Your task to perform on an android device: turn on translation in the chrome app Image 0: 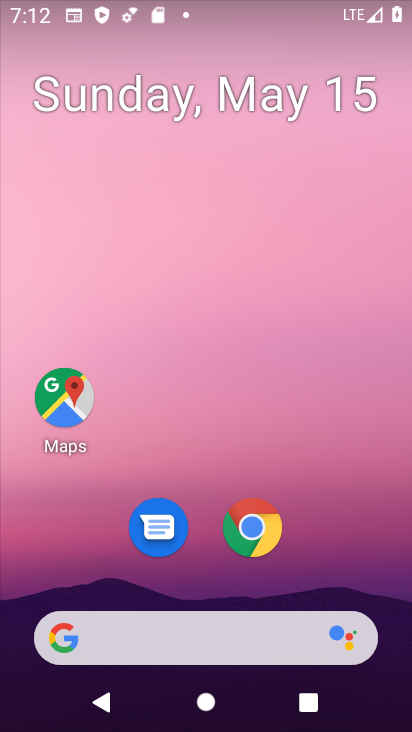
Step 0: drag from (376, 475) to (361, 58)
Your task to perform on an android device: turn on translation in the chrome app Image 1: 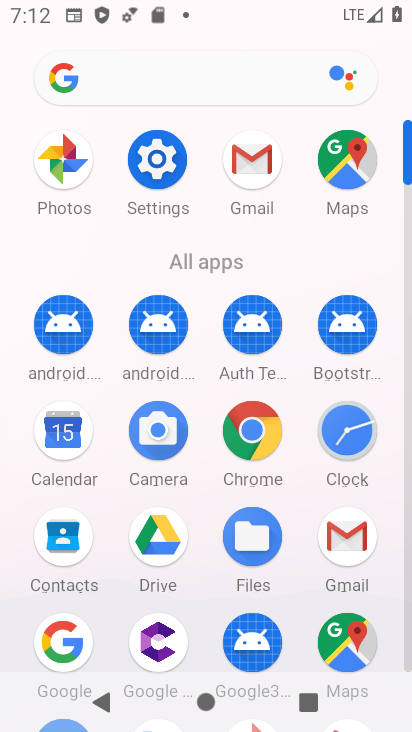
Step 1: click (253, 409)
Your task to perform on an android device: turn on translation in the chrome app Image 2: 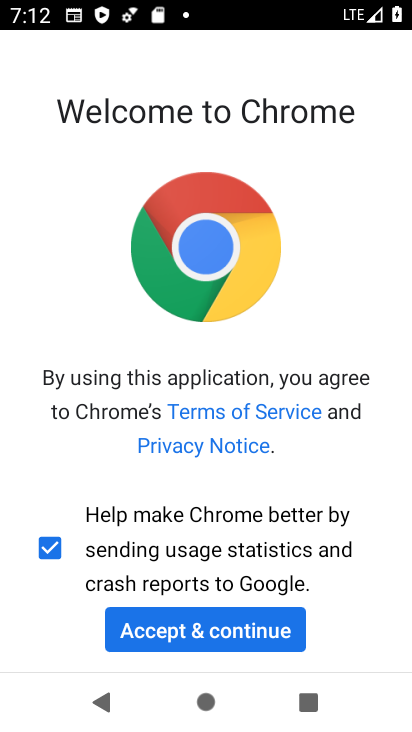
Step 2: click (247, 628)
Your task to perform on an android device: turn on translation in the chrome app Image 3: 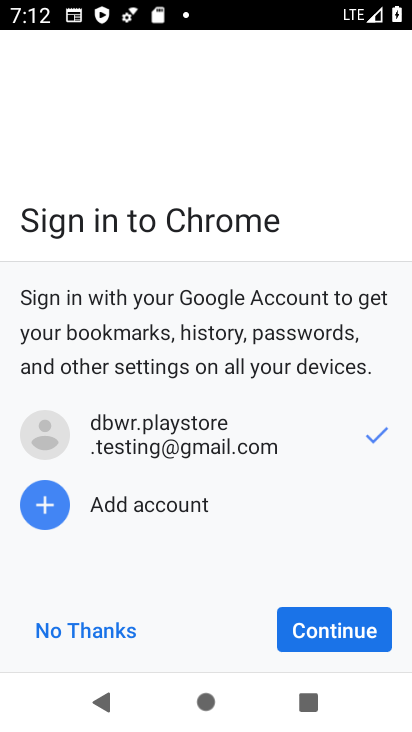
Step 3: click (339, 629)
Your task to perform on an android device: turn on translation in the chrome app Image 4: 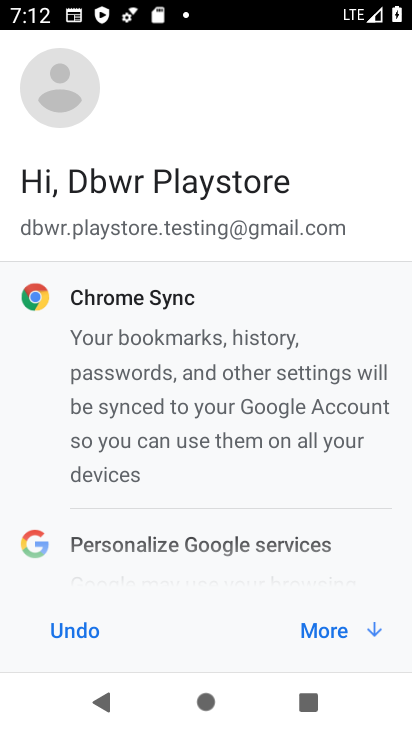
Step 4: click (339, 629)
Your task to perform on an android device: turn on translation in the chrome app Image 5: 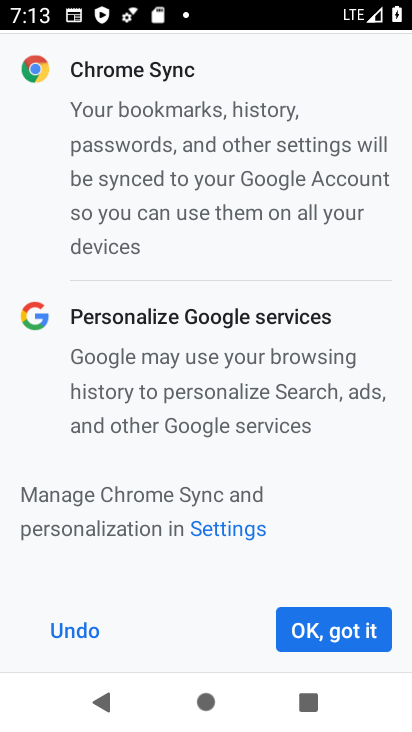
Step 5: click (339, 629)
Your task to perform on an android device: turn on translation in the chrome app Image 6: 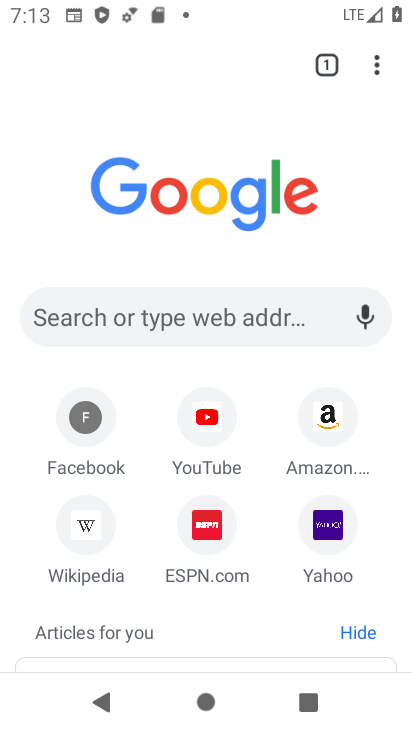
Step 6: drag from (373, 56) to (137, 553)
Your task to perform on an android device: turn on translation in the chrome app Image 7: 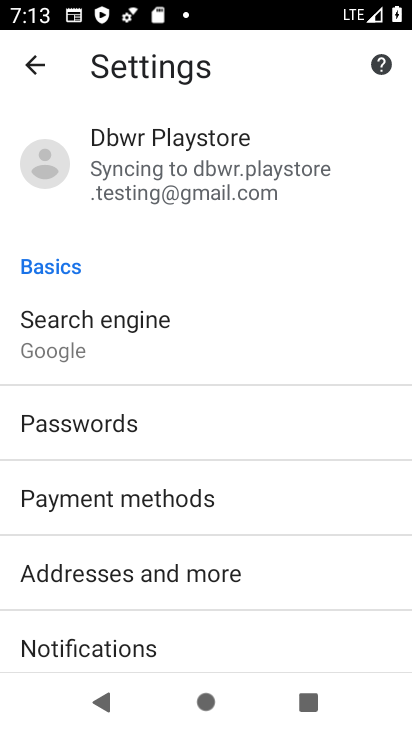
Step 7: drag from (215, 605) to (164, 273)
Your task to perform on an android device: turn on translation in the chrome app Image 8: 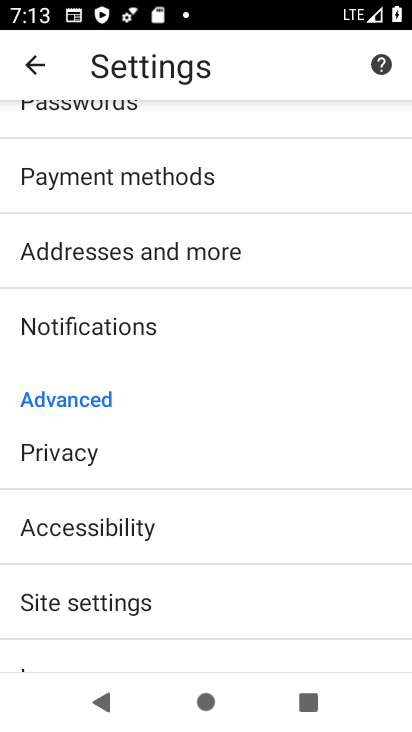
Step 8: drag from (248, 579) to (248, 164)
Your task to perform on an android device: turn on translation in the chrome app Image 9: 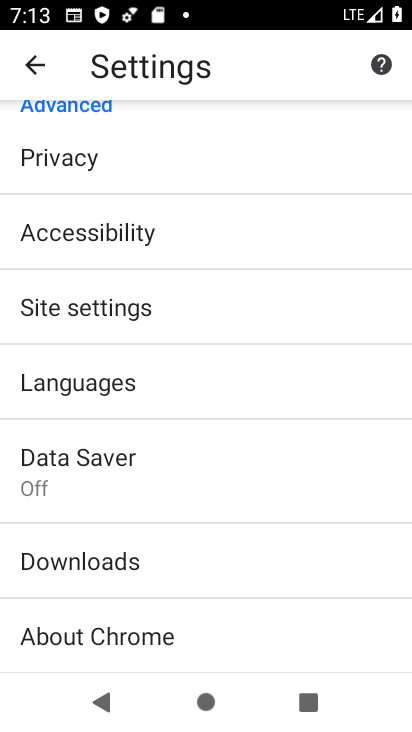
Step 9: drag from (244, 638) to (240, 193)
Your task to perform on an android device: turn on translation in the chrome app Image 10: 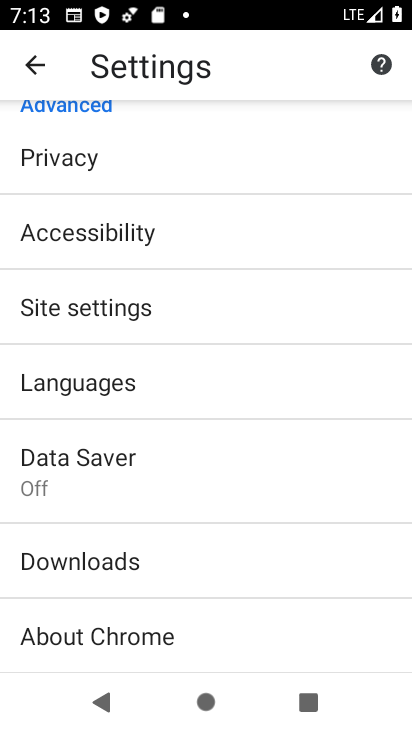
Step 10: click (81, 466)
Your task to perform on an android device: turn on translation in the chrome app Image 11: 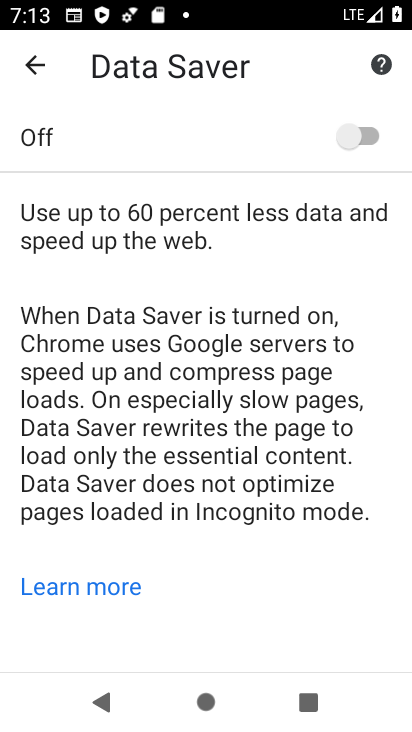
Step 11: click (348, 144)
Your task to perform on an android device: turn on translation in the chrome app Image 12: 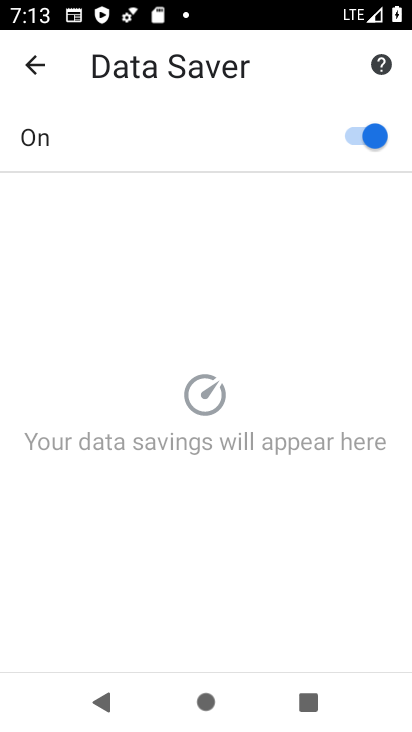
Step 12: task complete